Your task to perform on an android device: open sync settings in chrome Image 0: 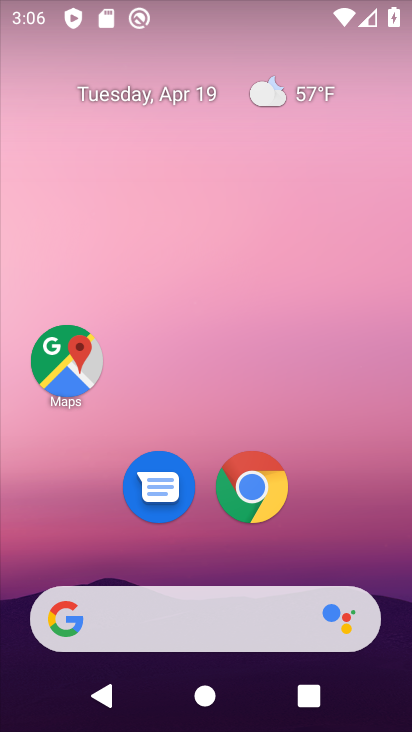
Step 0: drag from (349, 497) to (348, 243)
Your task to perform on an android device: open sync settings in chrome Image 1: 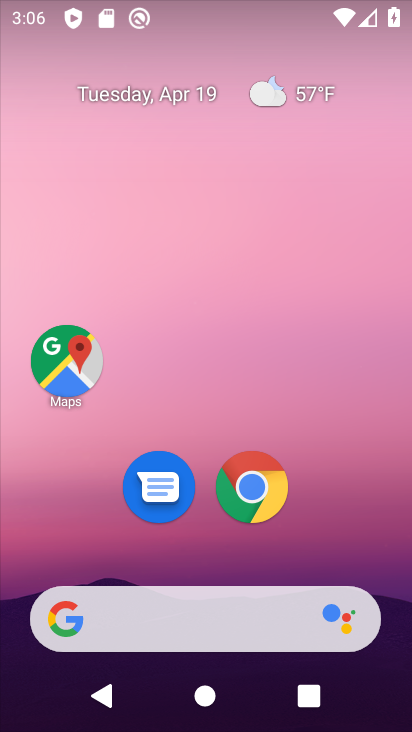
Step 1: click (277, 479)
Your task to perform on an android device: open sync settings in chrome Image 2: 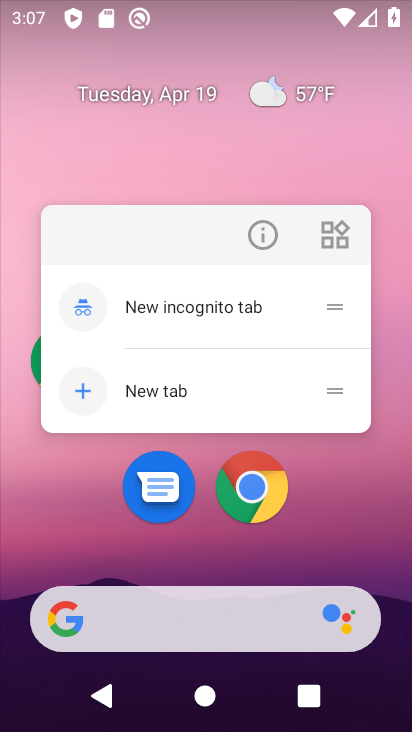
Step 2: click (303, 526)
Your task to perform on an android device: open sync settings in chrome Image 3: 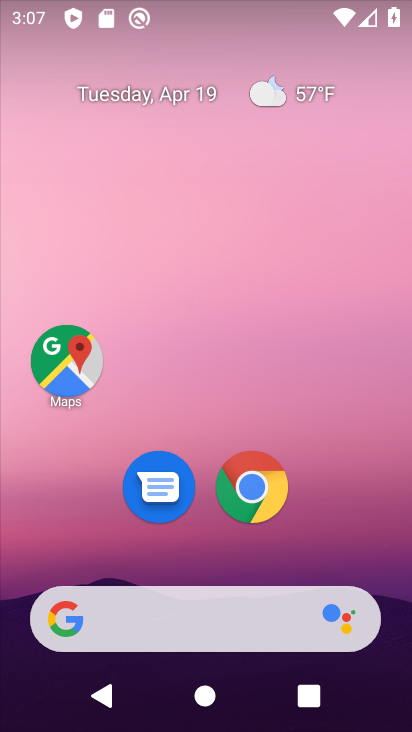
Step 3: click (272, 499)
Your task to perform on an android device: open sync settings in chrome Image 4: 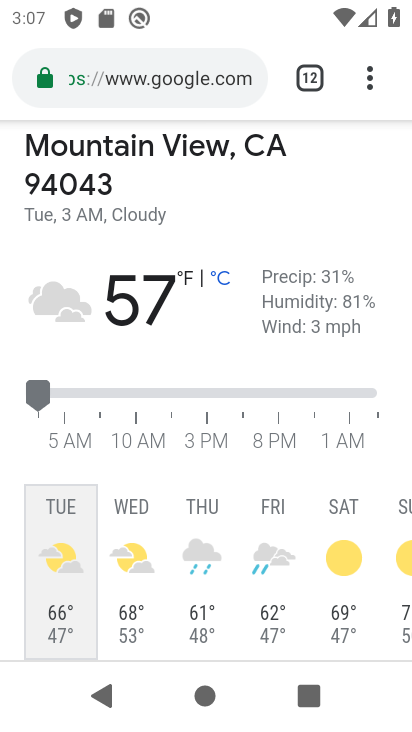
Step 4: click (375, 85)
Your task to perform on an android device: open sync settings in chrome Image 5: 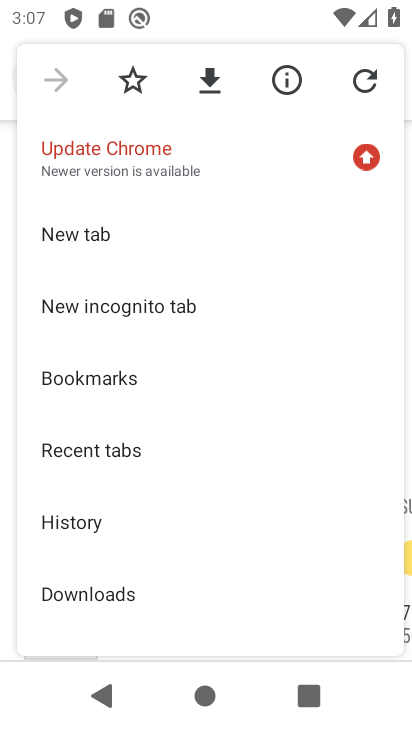
Step 5: drag from (205, 581) to (263, 266)
Your task to perform on an android device: open sync settings in chrome Image 6: 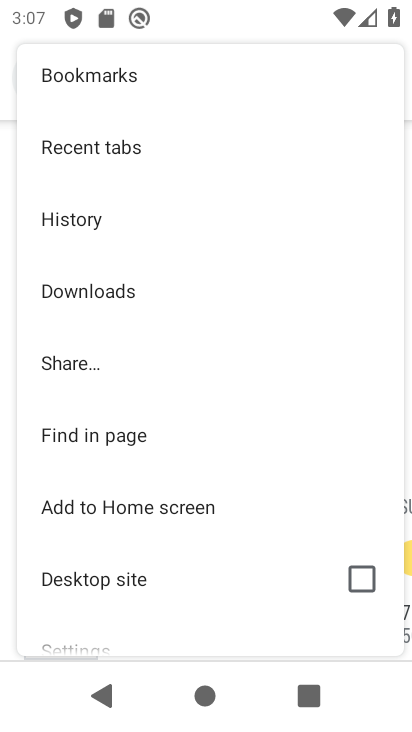
Step 6: drag from (189, 585) to (223, 274)
Your task to perform on an android device: open sync settings in chrome Image 7: 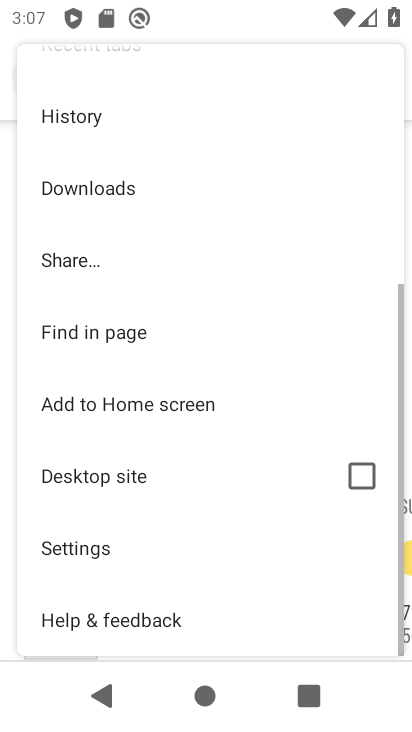
Step 7: click (76, 550)
Your task to perform on an android device: open sync settings in chrome Image 8: 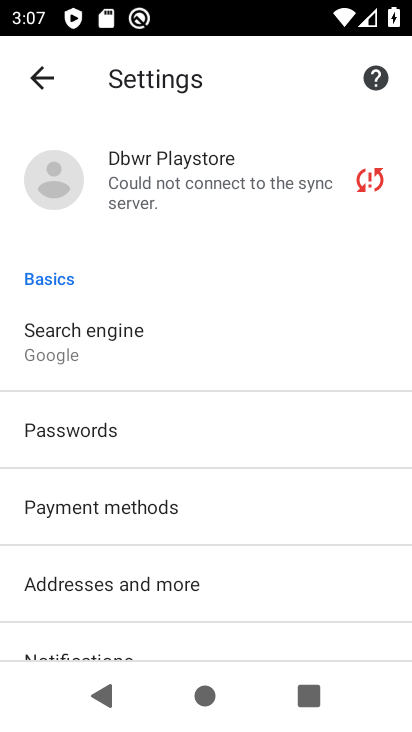
Step 8: drag from (247, 613) to (282, 384)
Your task to perform on an android device: open sync settings in chrome Image 9: 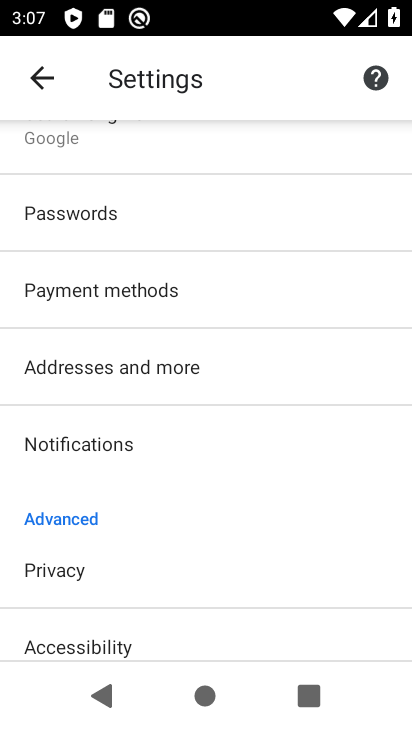
Step 9: drag from (192, 582) to (275, 299)
Your task to perform on an android device: open sync settings in chrome Image 10: 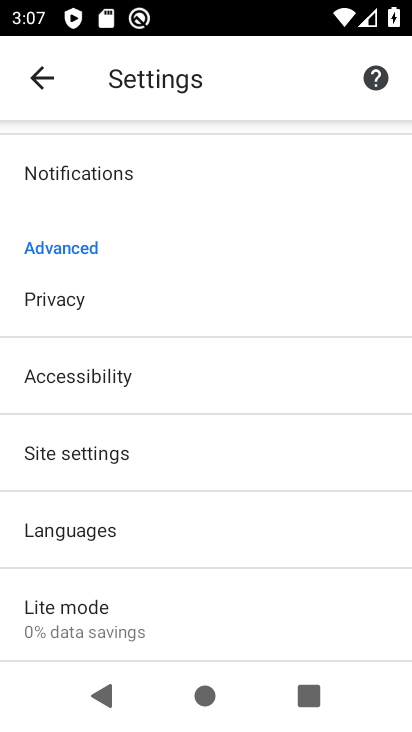
Step 10: drag from (156, 583) to (220, 335)
Your task to perform on an android device: open sync settings in chrome Image 11: 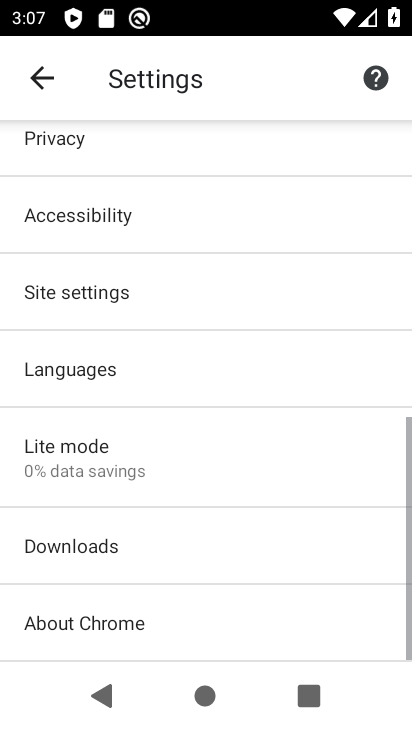
Step 11: click (81, 296)
Your task to perform on an android device: open sync settings in chrome Image 12: 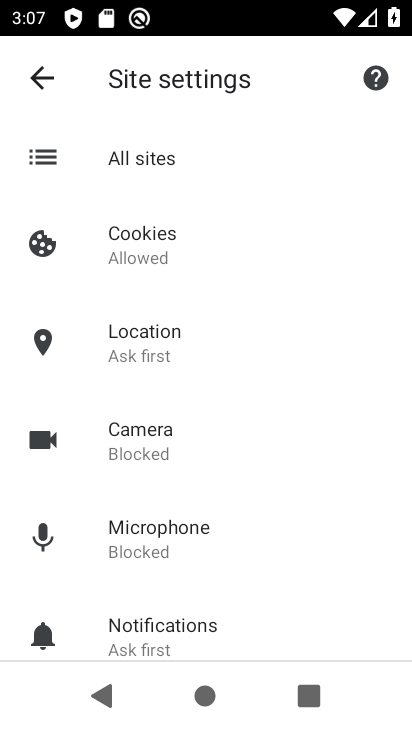
Step 12: drag from (299, 566) to (304, 287)
Your task to perform on an android device: open sync settings in chrome Image 13: 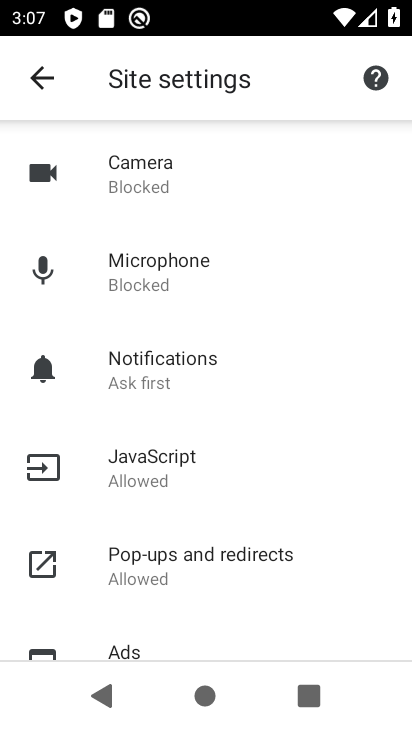
Step 13: drag from (214, 588) to (273, 356)
Your task to perform on an android device: open sync settings in chrome Image 14: 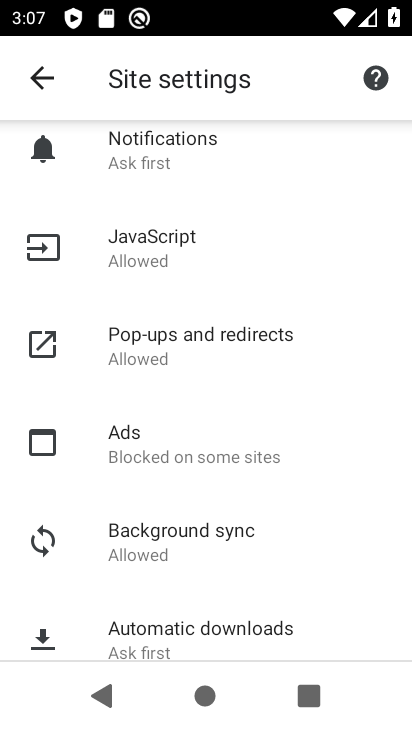
Step 14: click (190, 561)
Your task to perform on an android device: open sync settings in chrome Image 15: 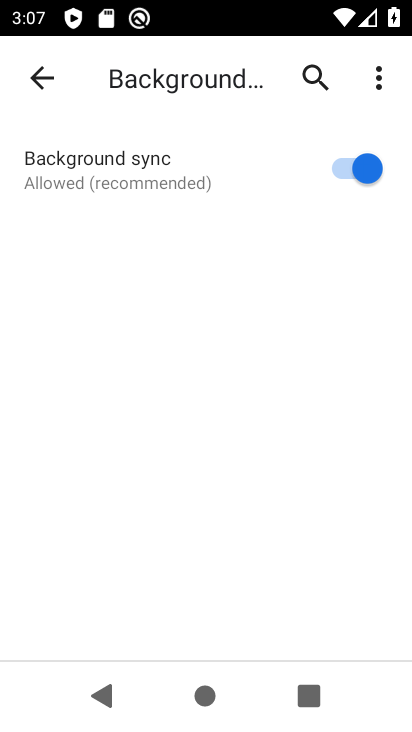
Step 15: task complete